Your task to perform on an android device: Search for seafood restaurants on Google Maps Image 0: 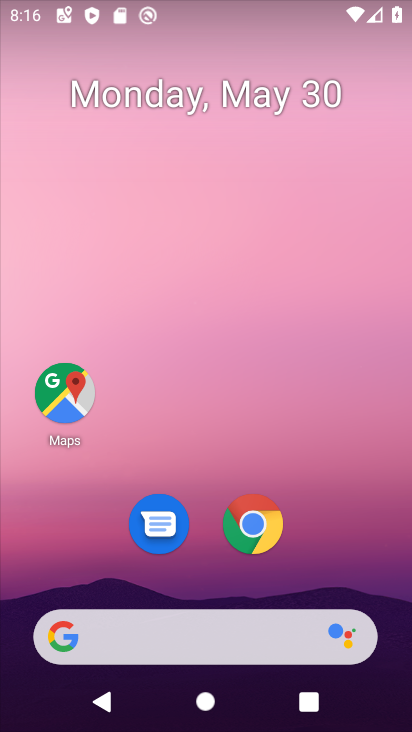
Step 0: click (64, 410)
Your task to perform on an android device: Search for seafood restaurants on Google Maps Image 1: 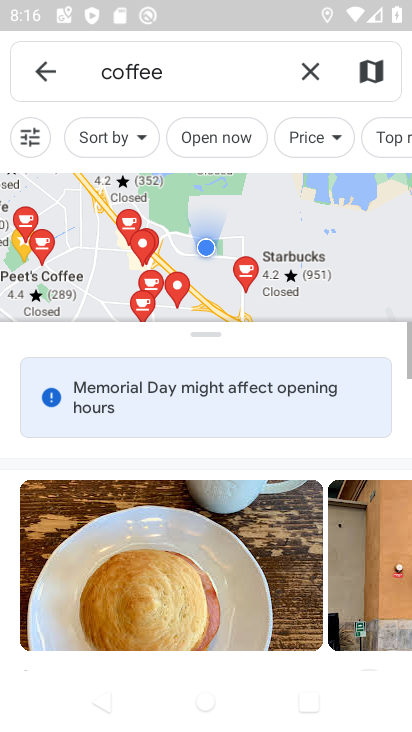
Step 1: click (304, 71)
Your task to perform on an android device: Search for seafood restaurants on Google Maps Image 2: 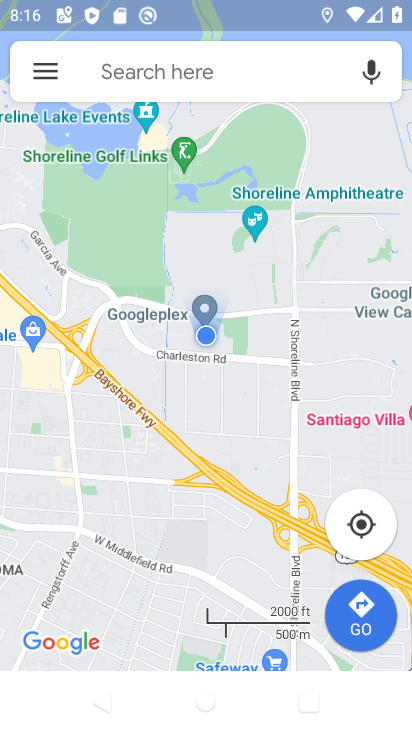
Step 2: click (242, 71)
Your task to perform on an android device: Search for seafood restaurants on Google Maps Image 3: 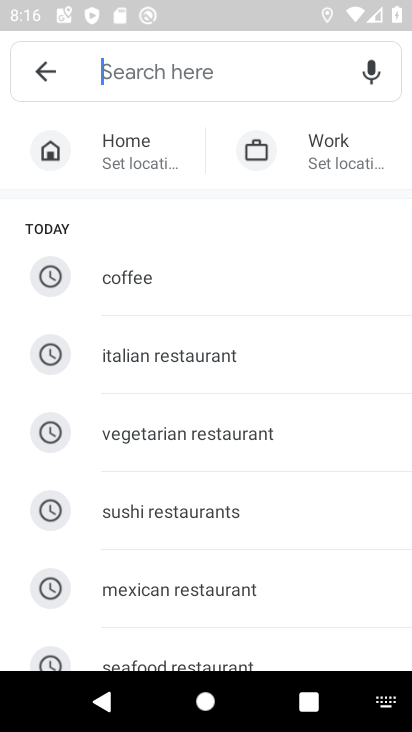
Step 3: drag from (198, 548) to (231, 357)
Your task to perform on an android device: Search for seafood restaurants on Google Maps Image 4: 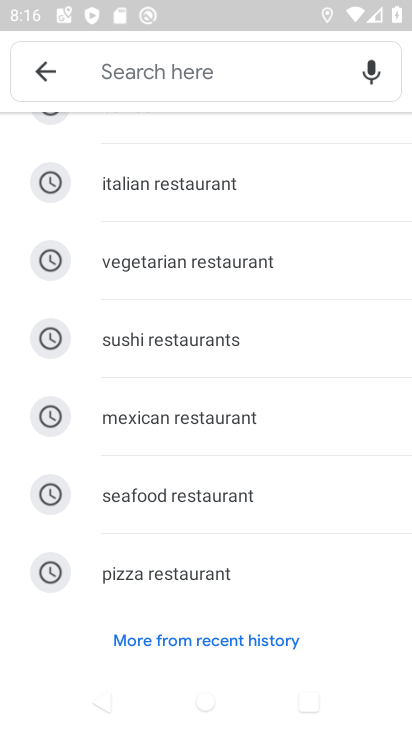
Step 4: click (220, 495)
Your task to perform on an android device: Search for seafood restaurants on Google Maps Image 5: 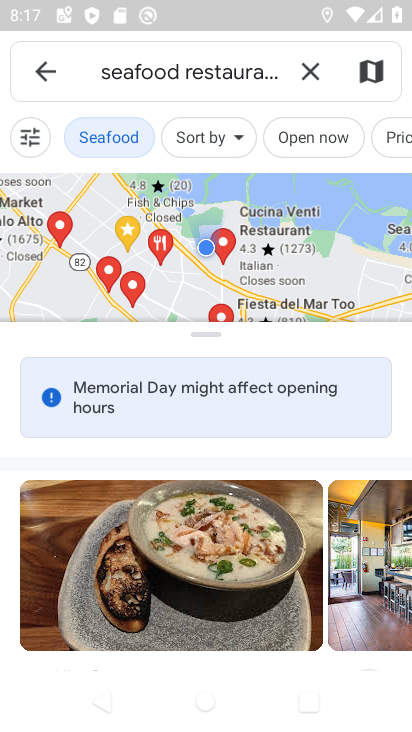
Step 5: task complete